Your task to perform on an android device: Toggle the flashlight Image 0: 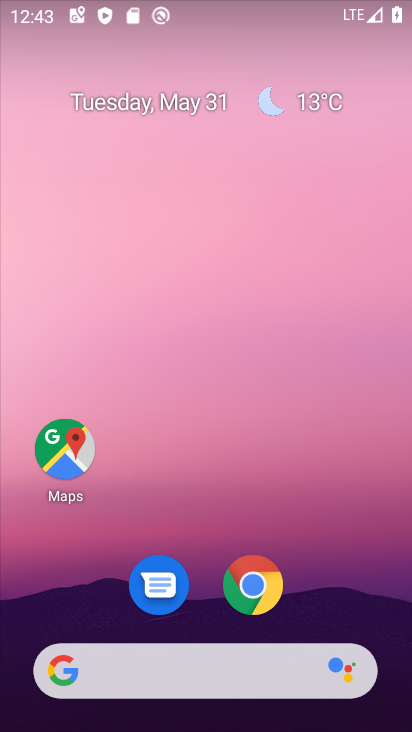
Step 0: drag from (334, 520) to (284, 30)
Your task to perform on an android device: Toggle the flashlight Image 1: 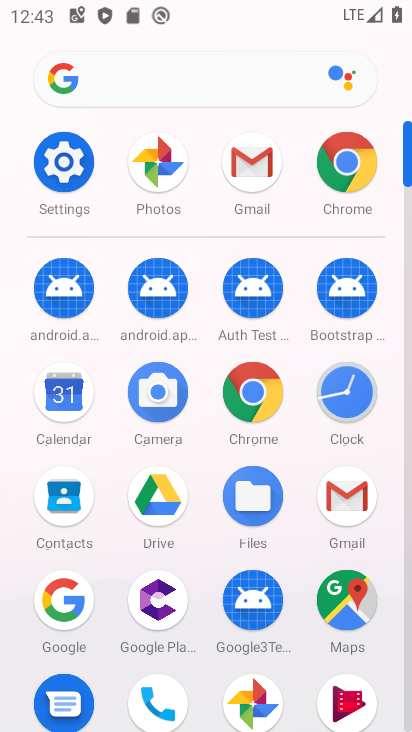
Step 1: click (67, 160)
Your task to perform on an android device: Toggle the flashlight Image 2: 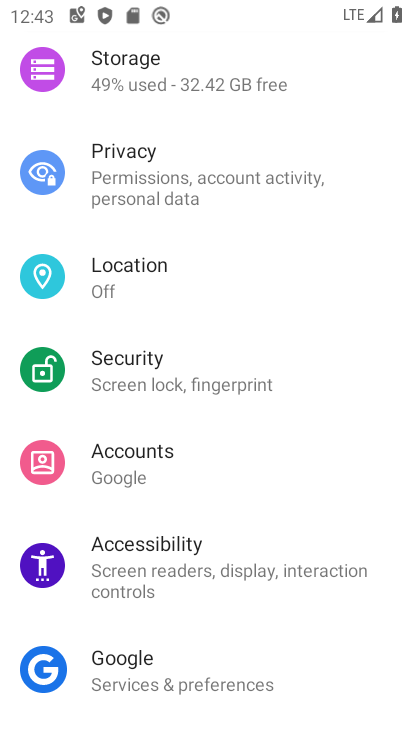
Step 2: drag from (229, 156) to (195, 729)
Your task to perform on an android device: Toggle the flashlight Image 3: 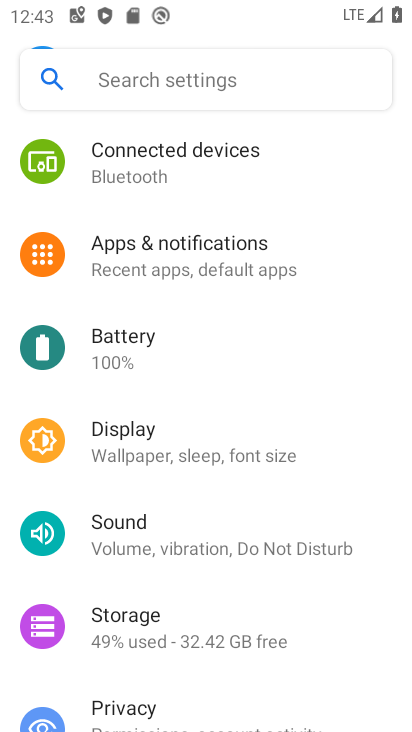
Step 3: drag from (276, 185) to (206, 653)
Your task to perform on an android device: Toggle the flashlight Image 4: 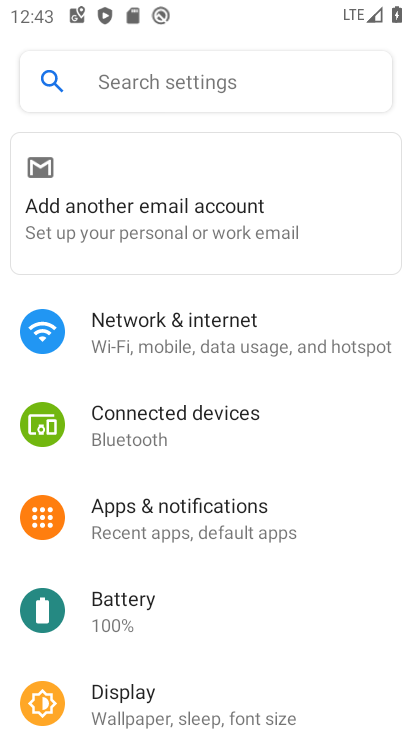
Step 4: click (266, 80)
Your task to perform on an android device: Toggle the flashlight Image 5: 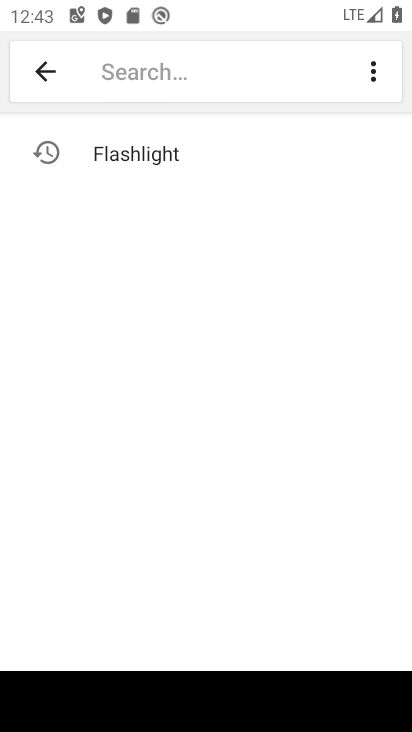
Step 5: click (152, 156)
Your task to perform on an android device: Toggle the flashlight Image 6: 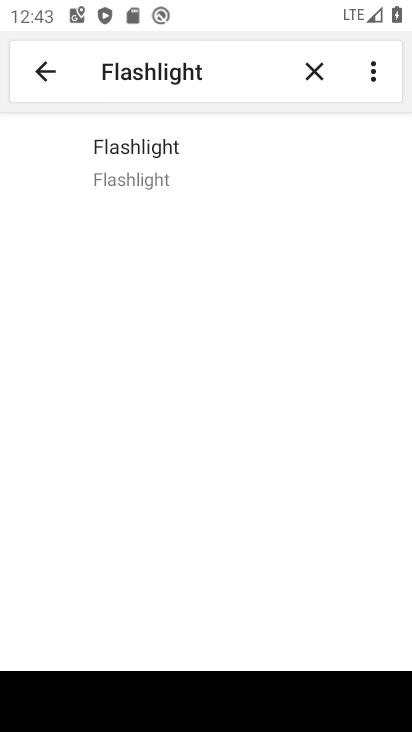
Step 6: click (152, 161)
Your task to perform on an android device: Toggle the flashlight Image 7: 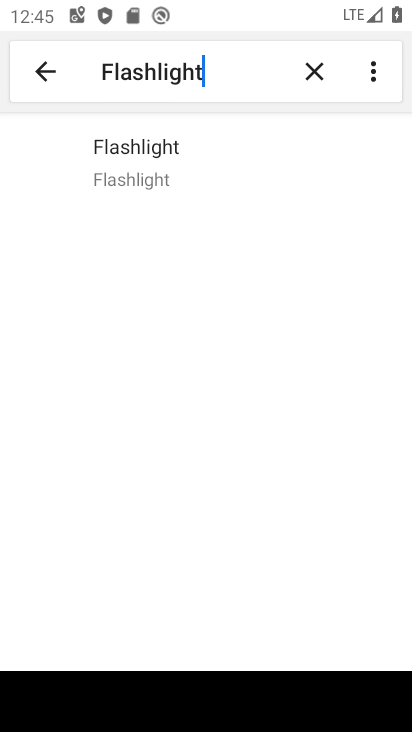
Step 7: task complete